Your task to perform on an android device: allow notifications from all sites in the chrome app Image 0: 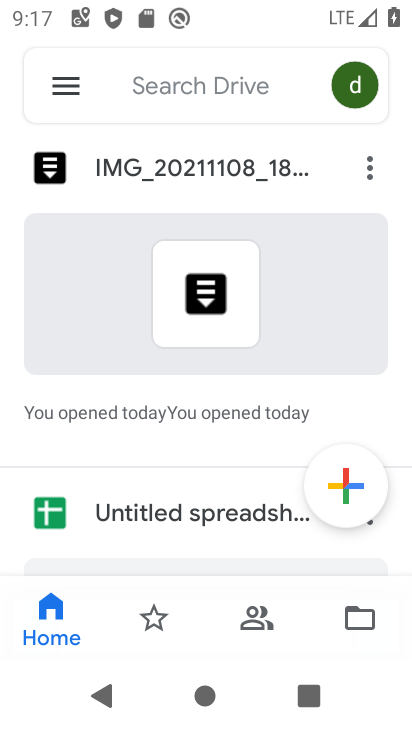
Step 0: press home button
Your task to perform on an android device: allow notifications from all sites in the chrome app Image 1: 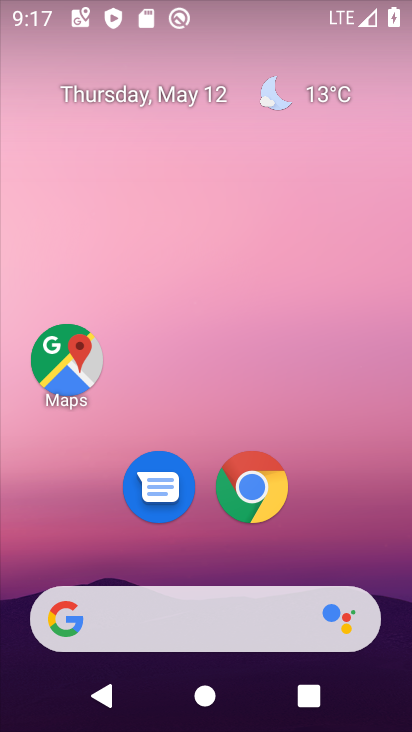
Step 1: click (259, 482)
Your task to perform on an android device: allow notifications from all sites in the chrome app Image 2: 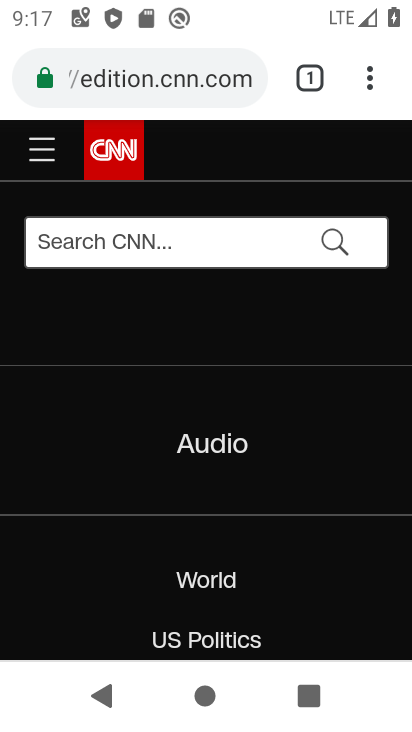
Step 2: click (368, 86)
Your task to perform on an android device: allow notifications from all sites in the chrome app Image 3: 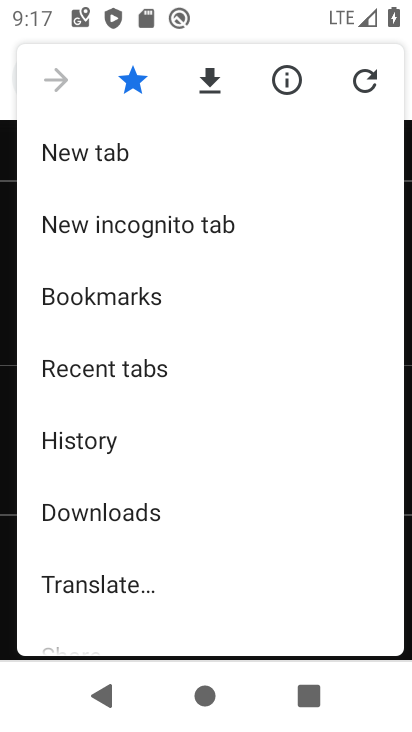
Step 3: drag from (200, 537) to (170, 64)
Your task to perform on an android device: allow notifications from all sites in the chrome app Image 4: 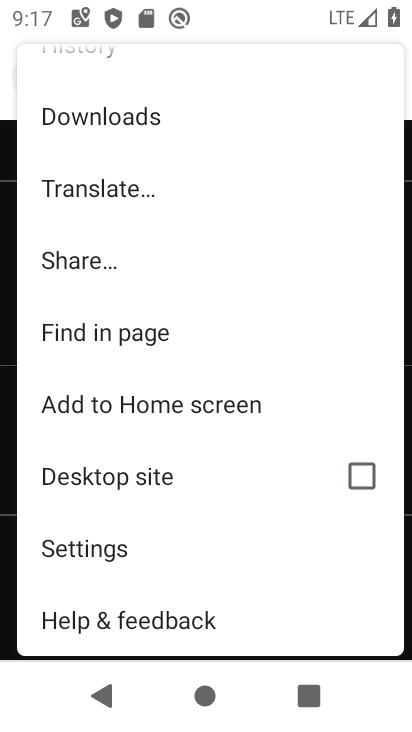
Step 4: click (89, 549)
Your task to perform on an android device: allow notifications from all sites in the chrome app Image 5: 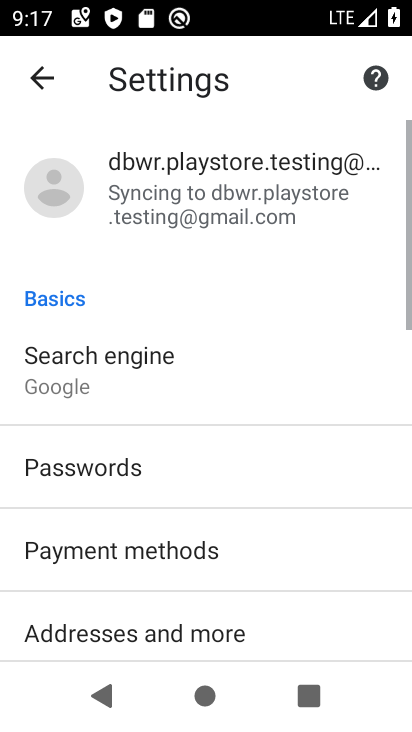
Step 5: drag from (125, 569) to (123, 67)
Your task to perform on an android device: allow notifications from all sites in the chrome app Image 6: 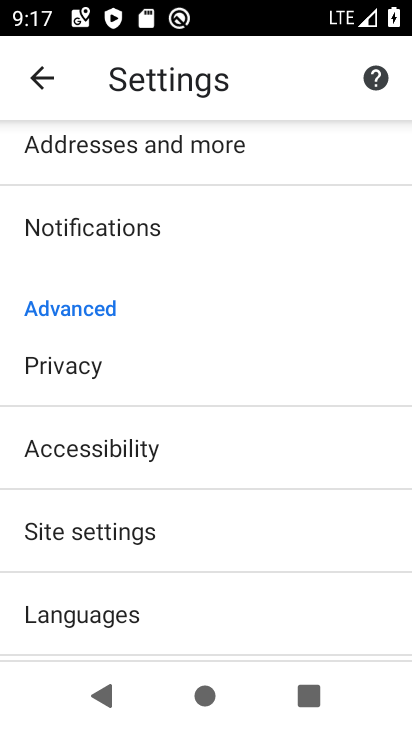
Step 6: click (85, 541)
Your task to perform on an android device: allow notifications from all sites in the chrome app Image 7: 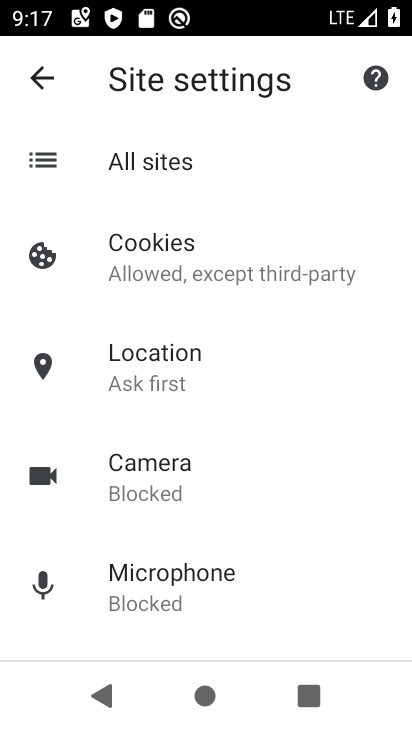
Step 7: drag from (293, 544) to (312, 221)
Your task to perform on an android device: allow notifications from all sites in the chrome app Image 8: 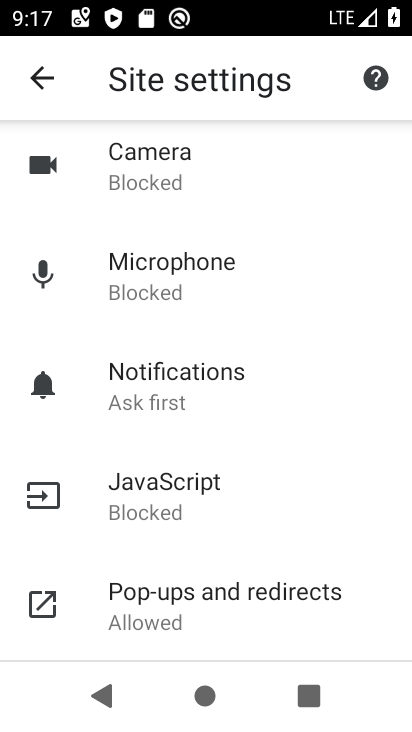
Step 8: click (203, 362)
Your task to perform on an android device: allow notifications from all sites in the chrome app Image 9: 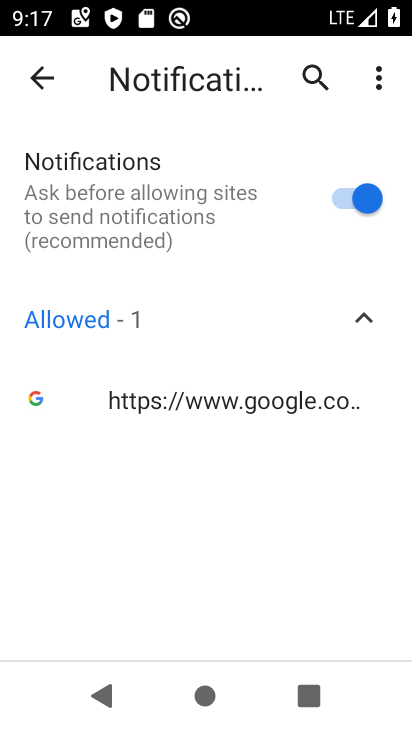
Step 9: task complete